Your task to perform on an android device: allow notifications from all sites in the chrome app Image 0: 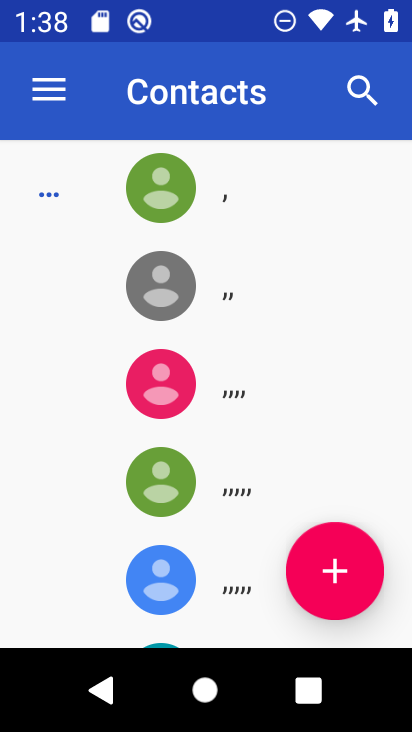
Step 0: press home button
Your task to perform on an android device: allow notifications from all sites in the chrome app Image 1: 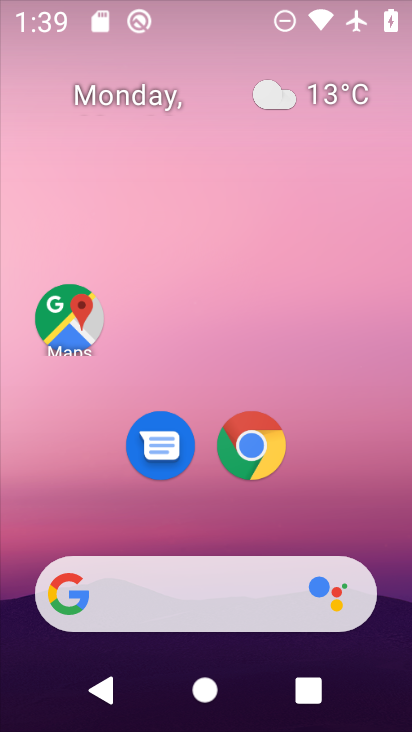
Step 1: drag from (403, 627) to (365, 76)
Your task to perform on an android device: allow notifications from all sites in the chrome app Image 2: 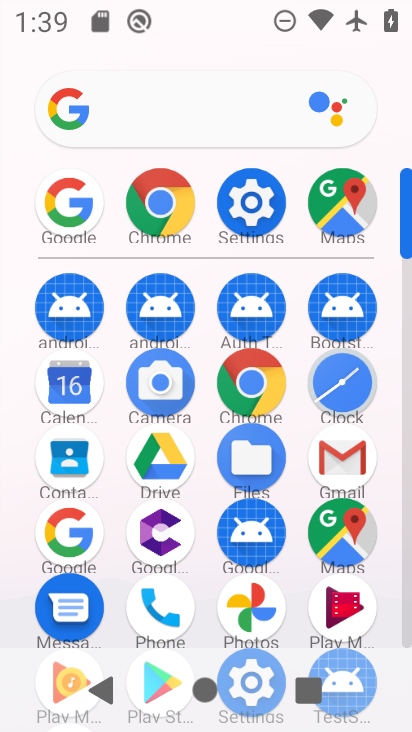
Step 2: click (262, 368)
Your task to perform on an android device: allow notifications from all sites in the chrome app Image 3: 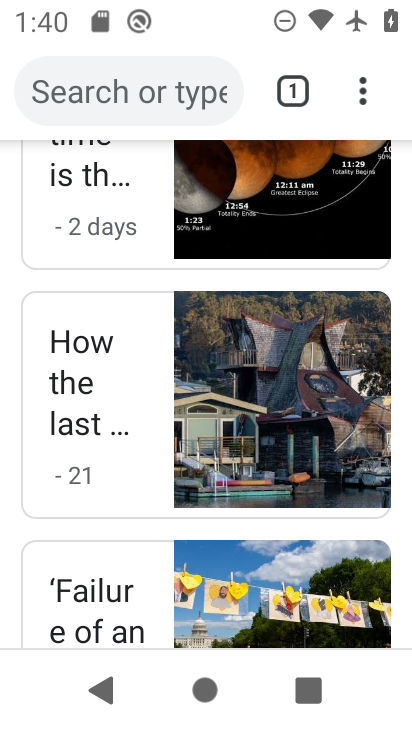
Step 3: click (365, 95)
Your task to perform on an android device: allow notifications from all sites in the chrome app Image 4: 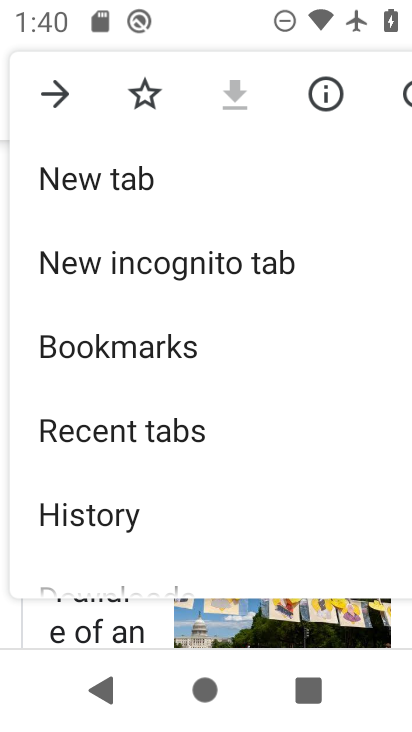
Step 4: drag from (190, 509) to (224, 195)
Your task to perform on an android device: allow notifications from all sites in the chrome app Image 5: 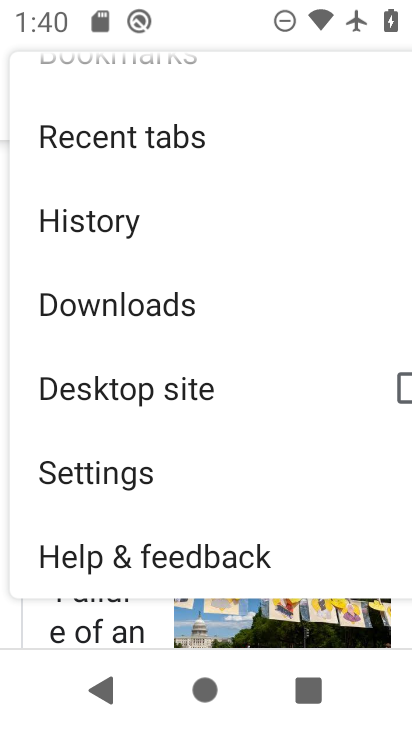
Step 5: click (165, 468)
Your task to perform on an android device: allow notifications from all sites in the chrome app Image 6: 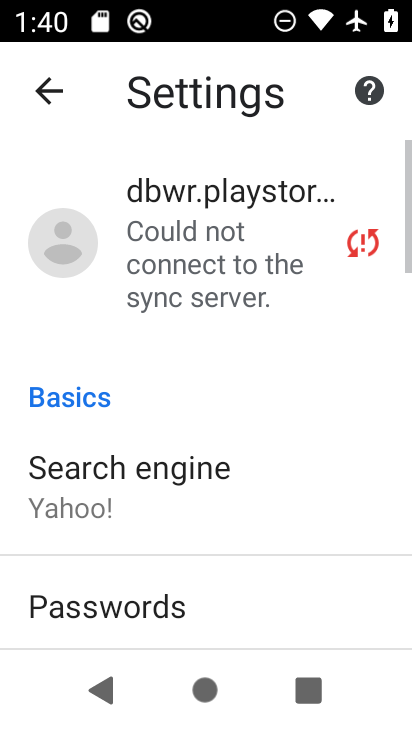
Step 6: drag from (161, 570) to (266, 108)
Your task to perform on an android device: allow notifications from all sites in the chrome app Image 7: 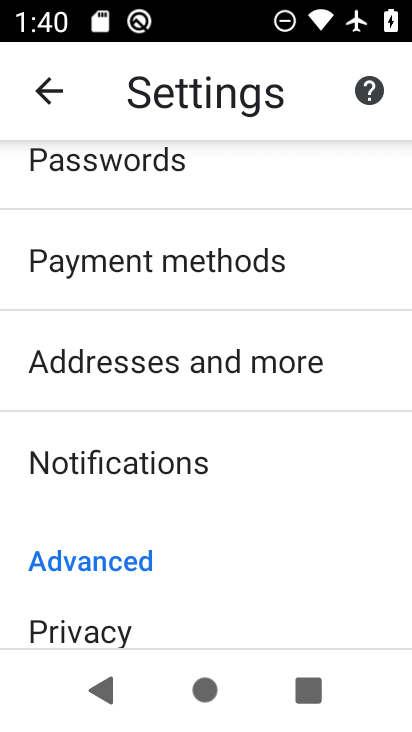
Step 7: drag from (209, 450) to (208, 176)
Your task to perform on an android device: allow notifications from all sites in the chrome app Image 8: 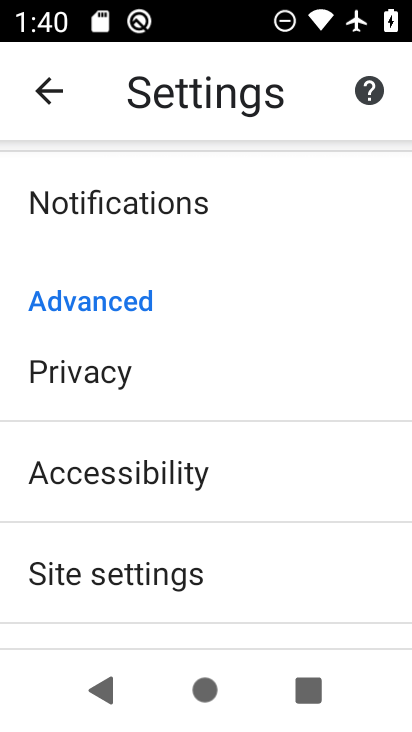
Step 8: click (217, 583)
Your task to perform on an android device: allow notifications from all sites in the chrome app Image 9: 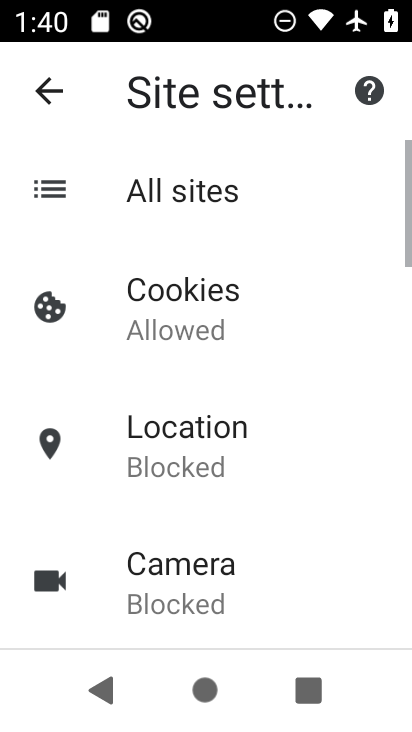
Step 9: drag from (176, 535) to (147, 97)
Your task to perform on an android device: allow notifications from all sites in the chrome app Image 10: 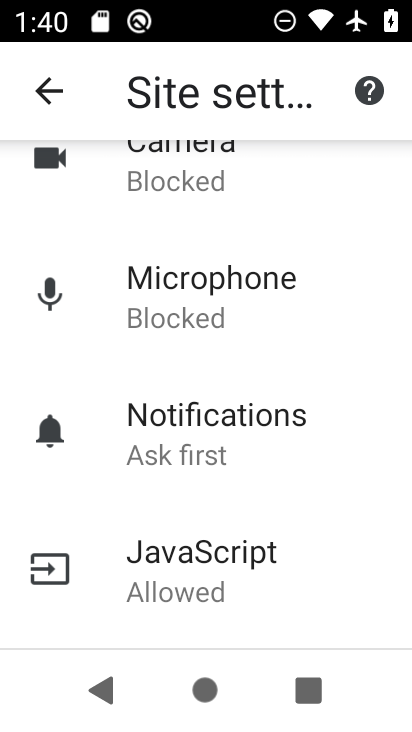
Step 10: click (238, 394)
Your task to perform on an android device: allow notifications from all sites in the chrome app Image 11: 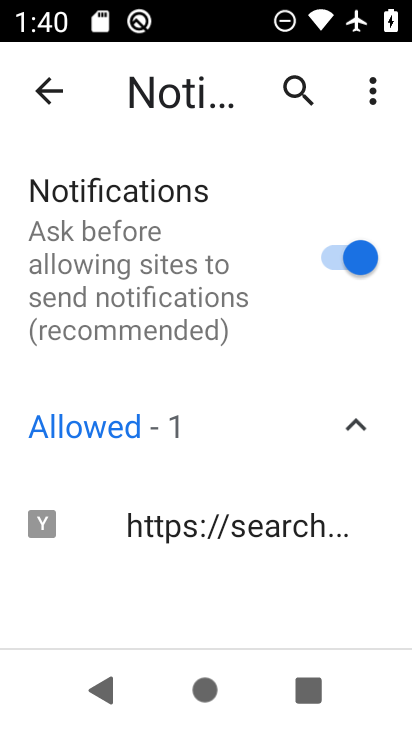
Step 11: task complete